Your task to perform on an android device: turn on data saver in the chrome app Image 0: 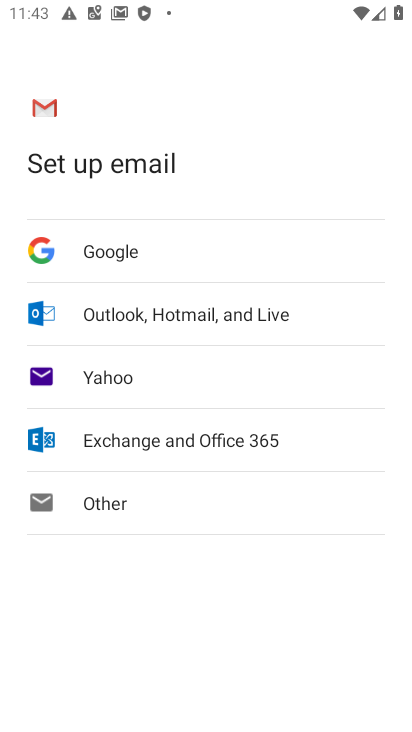
Step 0: press home button
Your task to perform on an android device: turn on data saver in the chrome app Image 1: 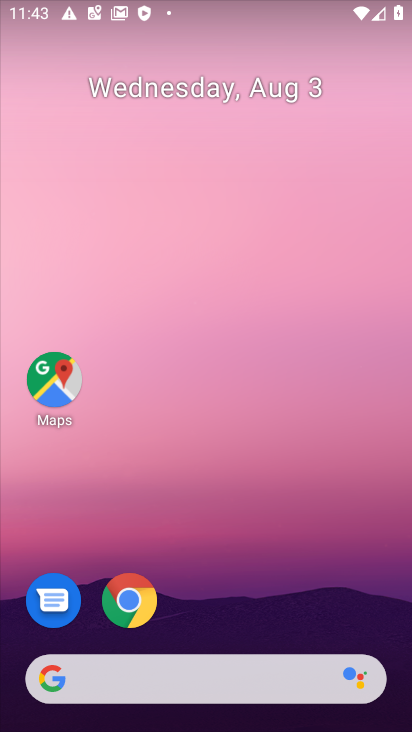
Step 1: click (119, 603)
Your task to perform on an android device: turn on data saver in the chrome app Image 2: 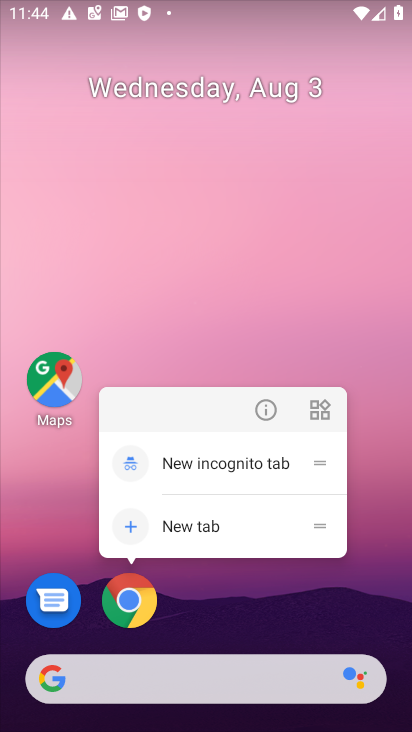
Step 2: click (138, 601)
Your task to perform on an android device: turn on data saver in the chrome app Image 3: 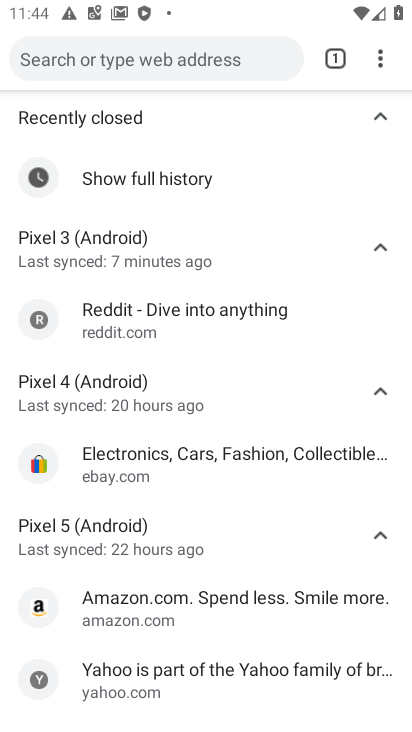
Step 3: drag from (380, 56) to (215, 558)
Your task to perform on an android device: turn on data saver in the chrome app Image 4: 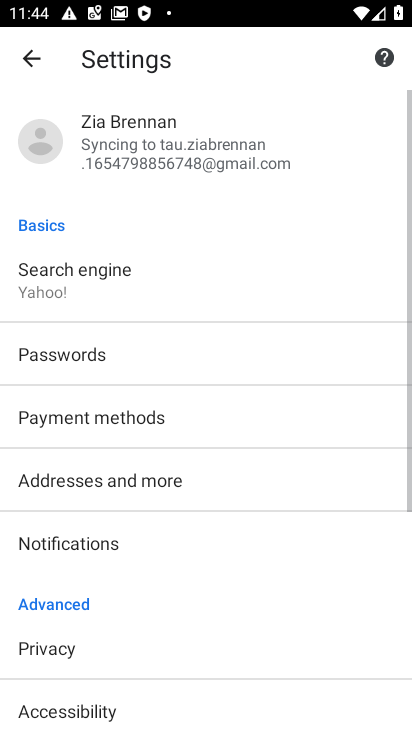
Step 4: drag from (151, 623) to (209, 302)
Your task to perform on an android device: turn on data saver in the chrome app Image 5: 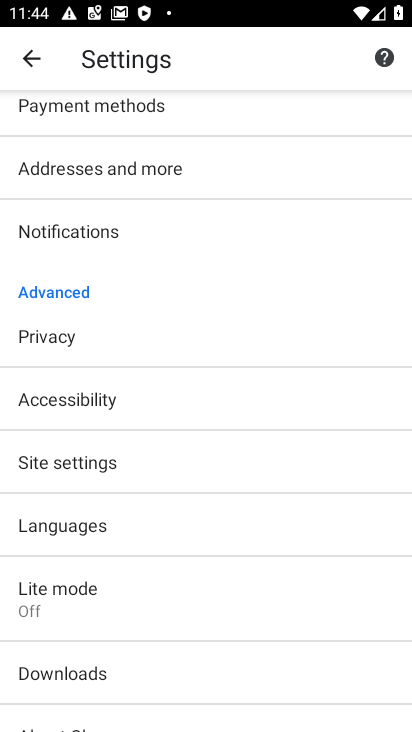
Step 5: click (101, 595)
Your task to perform on an android device: turn on data saver in the chrome app Image 6: 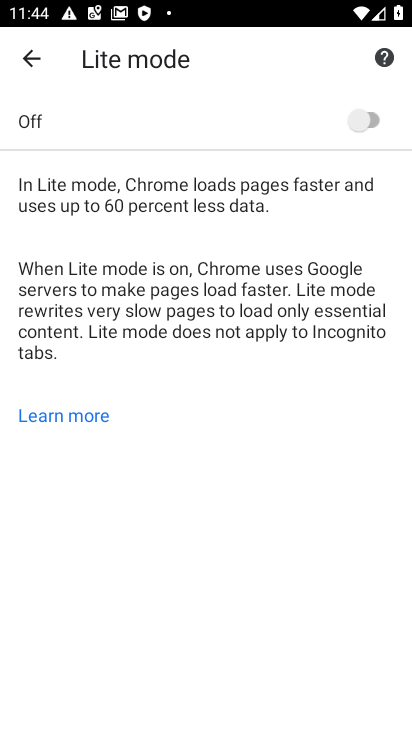
Step 6: click (371, 119)
Your task to perform on an android device: turn on data saver in the chrome app Image 7: 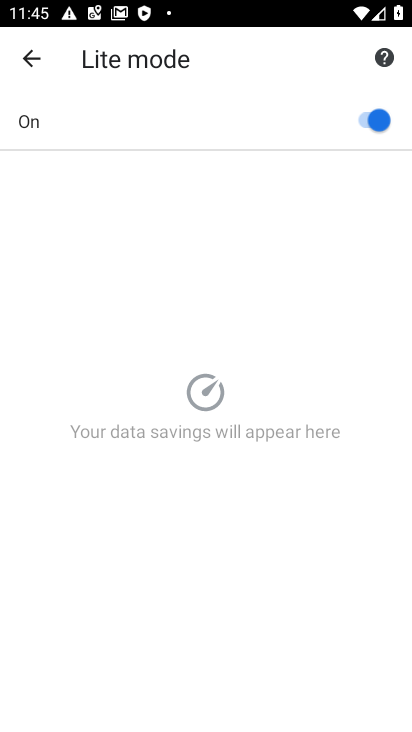
Step 7: task complete